Your task to perform on an android device: turn off translation in the chrome app Image 0: 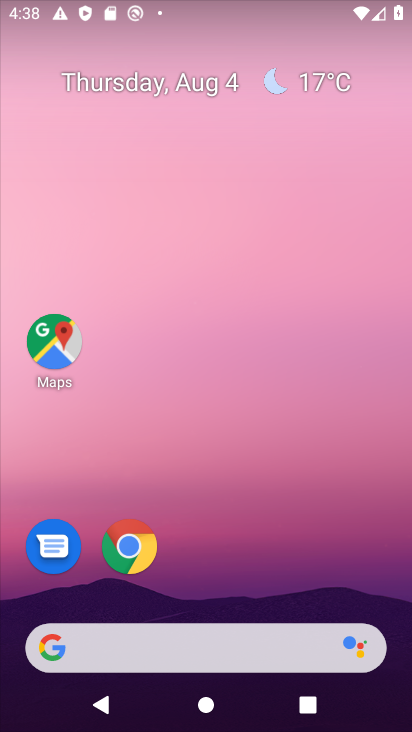
Step 0: click (131, 542)
Your task to perform on an android device: turn off translation in the chrome app Image 1: 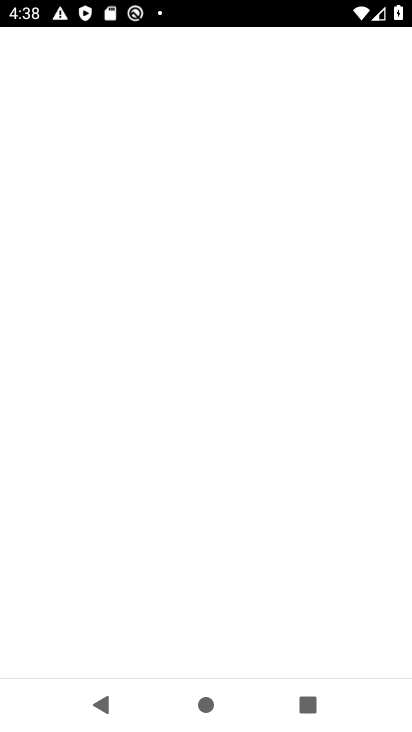
Step 1: click (119, 550)
Your task to perform on an android device: turn off translation in the chrome app Image 2: 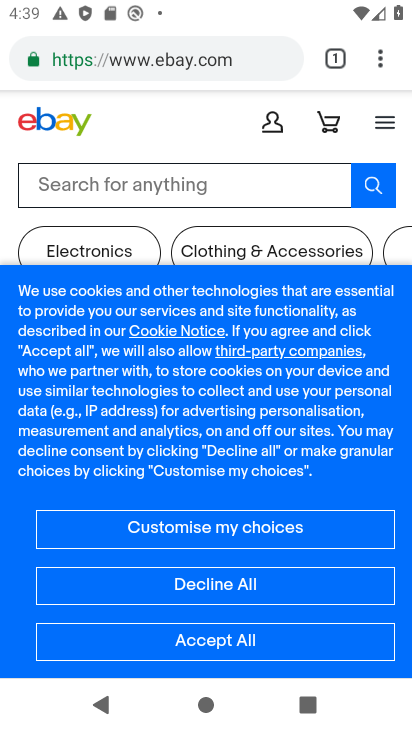
Step 2: click (378, 61)
Your task to perform on an android device: turn off translation in the chrome app Image 3: 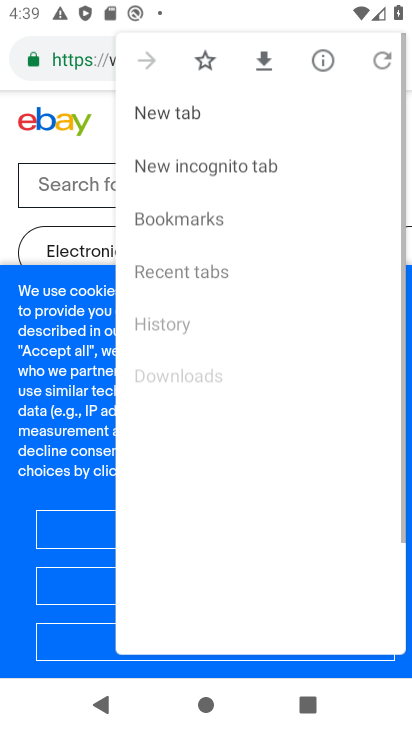
Step 3: click (380, 58)
Your task to perform on an android device: turn off translation in the chrome app Image 4: 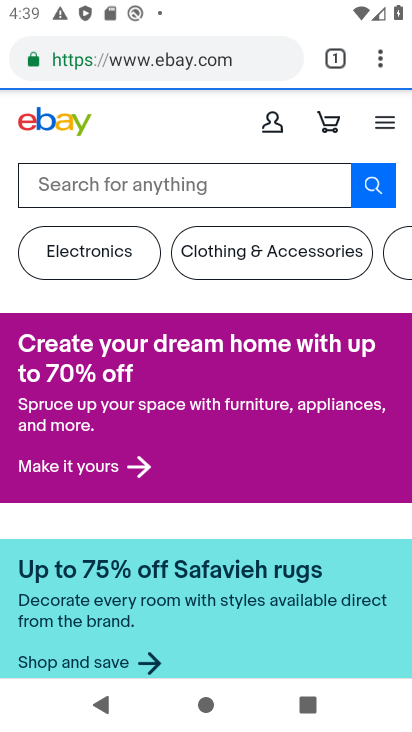
Step 4: click (380, 58)
Your task to perform on an android device: turn off translation in the chrome app Image 5: 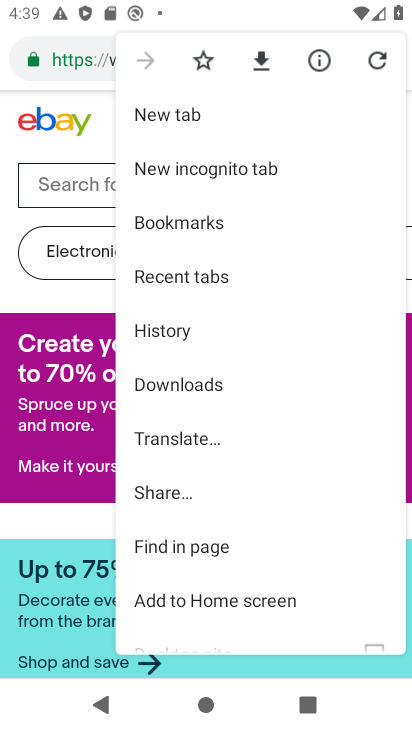
Step 5: drag from (156, 578) to (207, 284)
Your task to perform on an android device: turn off translation in the chrome app Image 6: 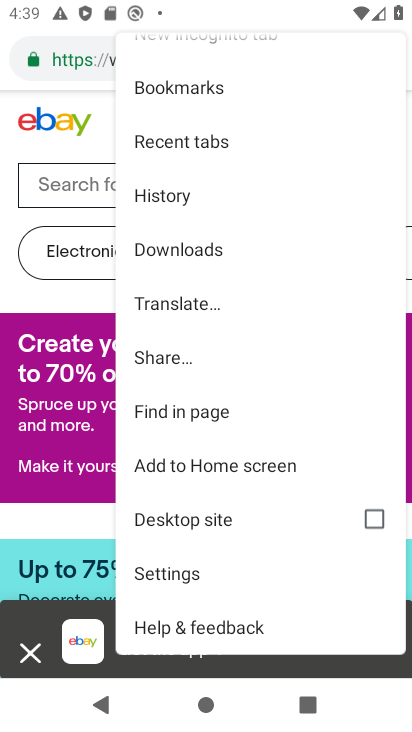
Step 6: click (161, 579)
Your task to perform on an android device: turn off translation in the chrome app Image 7: 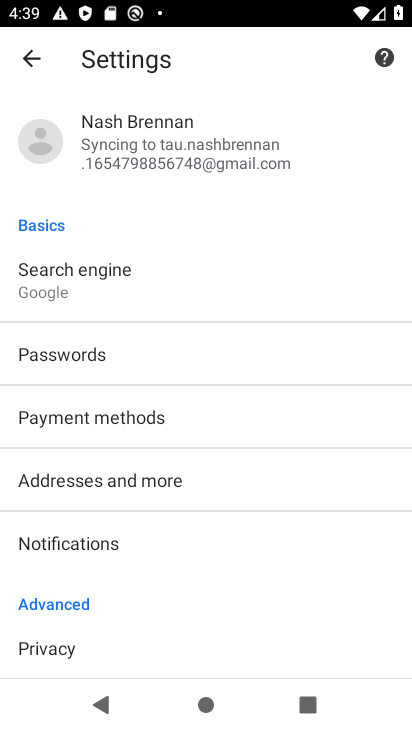
Step 7: drag from (109, 579) to (137, 251)
Your task to perform on an android device: turn off translation in the chrome app Image 8: 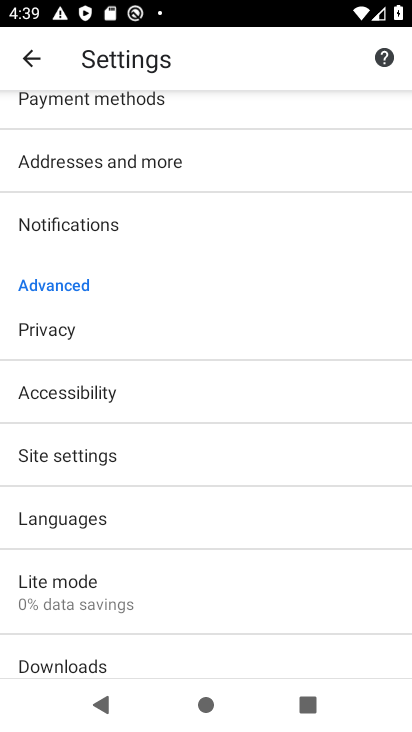
Step 8: click (51, 516)
Your task to perform on an android device: turn off translation in the chrome app Image 9: 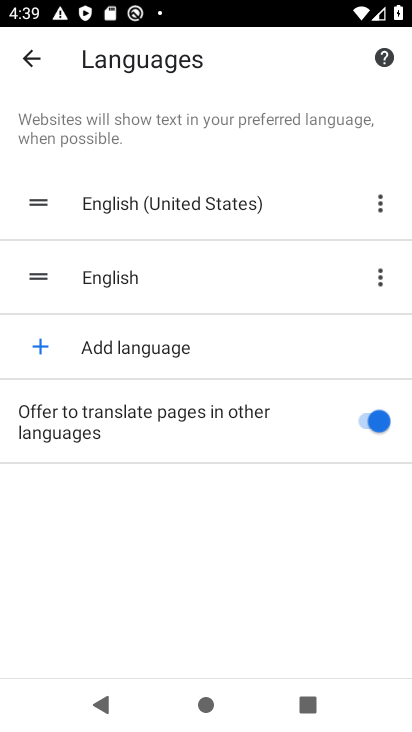
Step 9: click (350, 420)
Your task to perform on an android device: turn off translation in the chrome app Image 10: 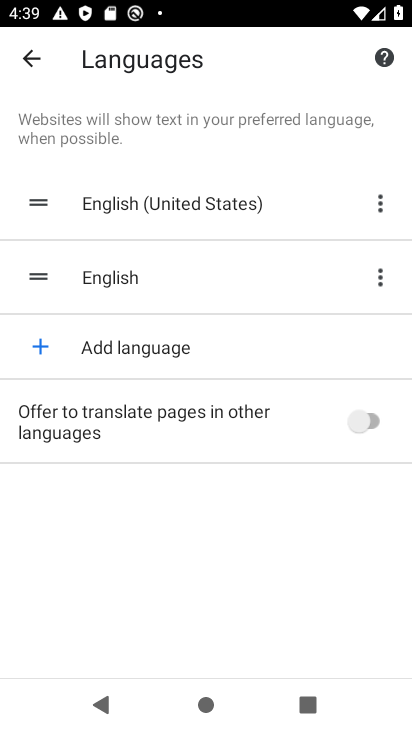
Step 10: task complete